Your task to perform on an android device: turn off airplane mode Image 0: 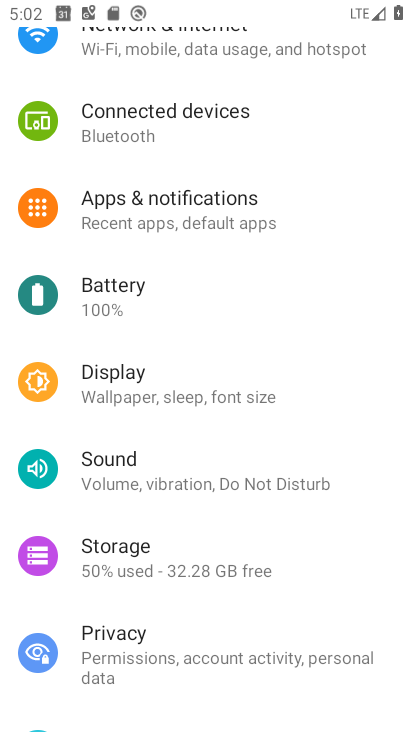
Step 0: drag from (340, 127) to (259, 689)
Your task to perform on an android device: turn off airplane mode Image 1: 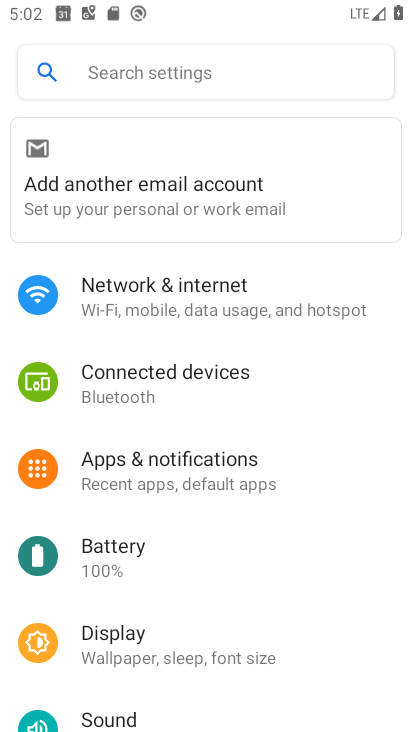
Step 1: click (232, 294)
Your task to perform on an android device: turn off airplane mode Image 2: 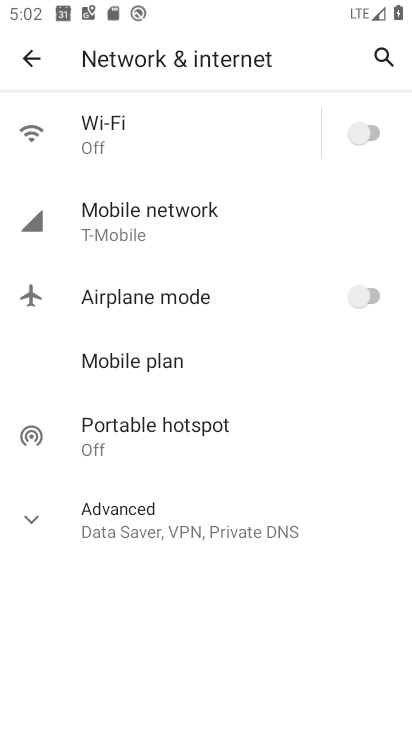
Step 2: task complete